Your task to perform on an android device: Open Google Maps Image 0: 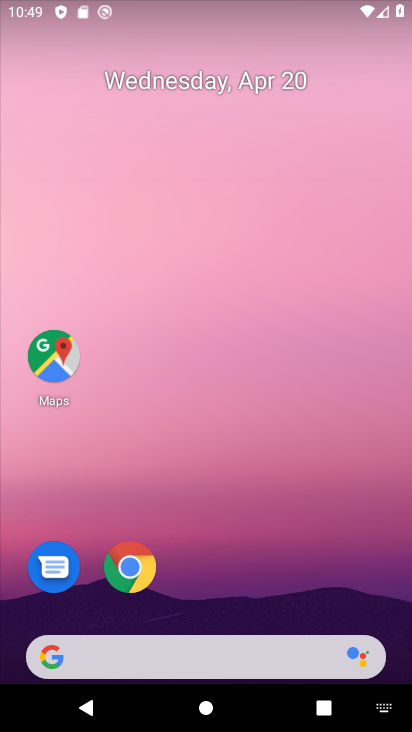
Step 0: drag from (209, 628) to (158, 64)
Your task to perform on an android device: Open Google Maps Image 1: 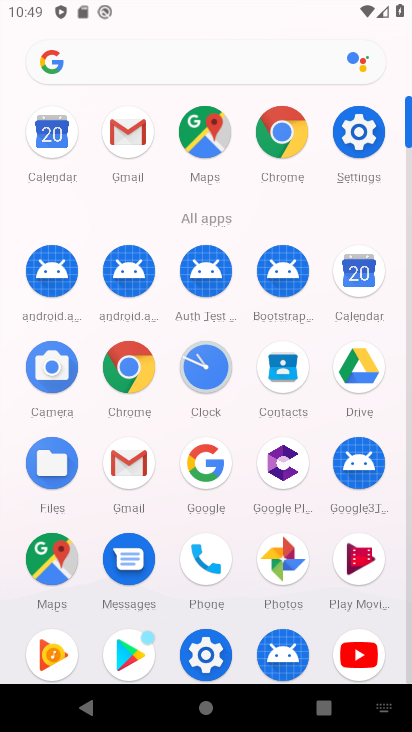
Step 1: click (50, 564)
Your task to perform on an android device: Open Google Maps Image 2: 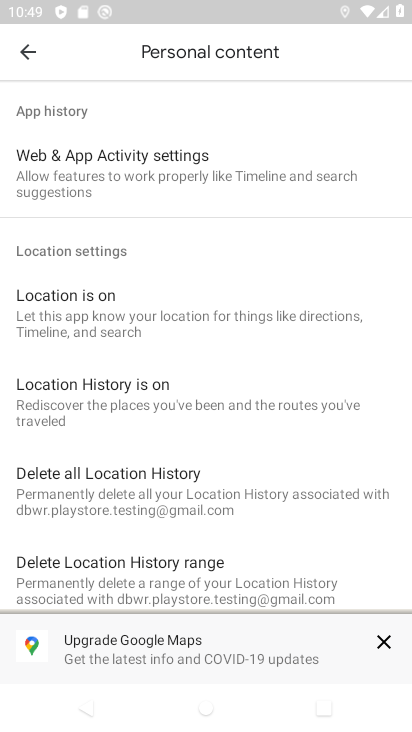
Step 2: press home button
Your task to perform on an android device: Open Google Maps Image 3: 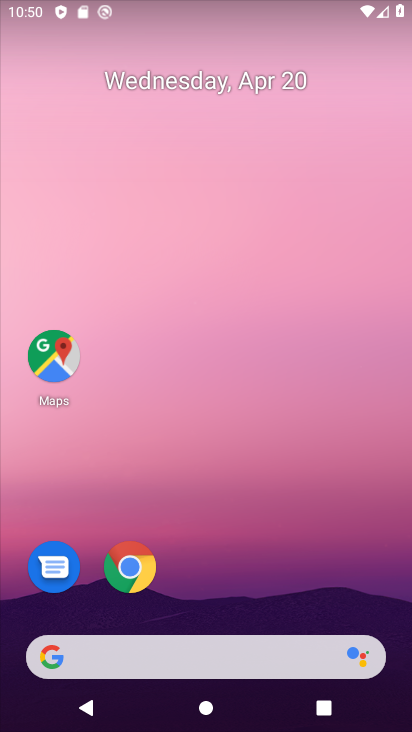
Step 3: click (54, 356)
Your task to perform on an android device: Open Google Maps Image 4: 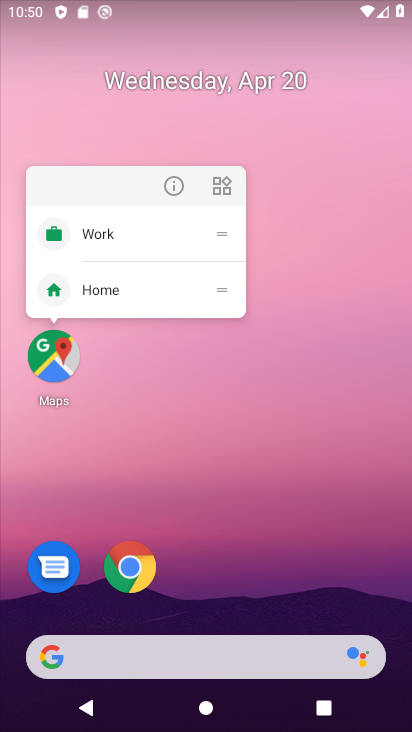
Step 4: click (57, 368)
Your task to perform on an android device: Open Google Maps Image 5: 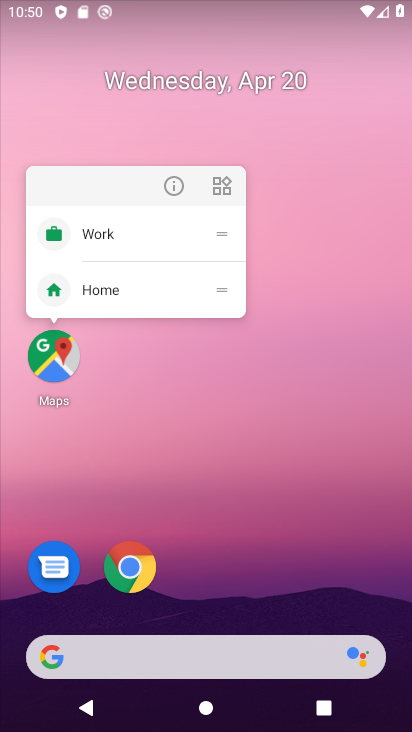
Step 5: click (46, 382)
Your task to perform on an android device: Open Google Maps Image 6: 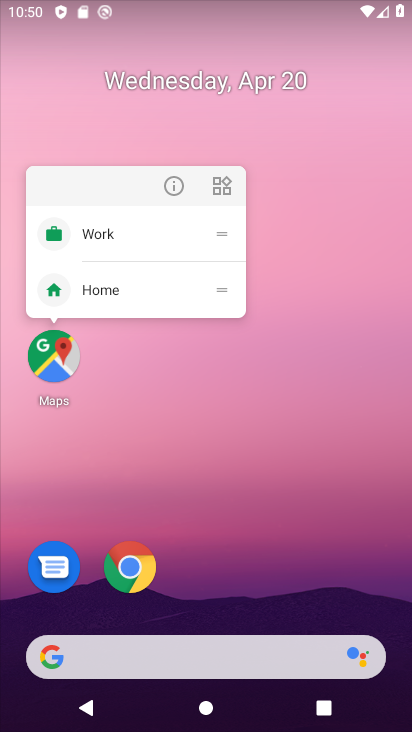
Step 6: click (30, 353)
Your task to perform on an android device: Open Google Maps Image 7: 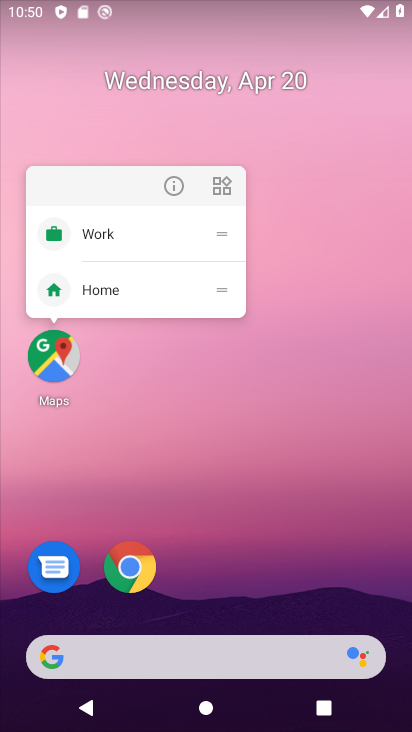
Step 7: click (50, 363)
Your task to perform on an android device: Open Google Maps Image 8: 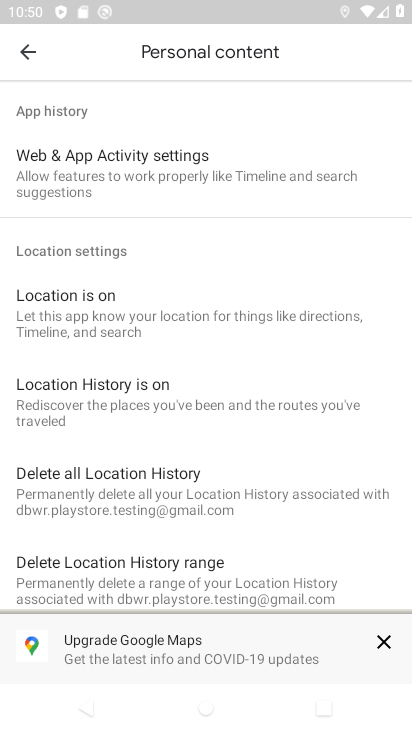
Step 8: click (17, 53)
Your task to perform on an android device: Open Google Maps Image 9: 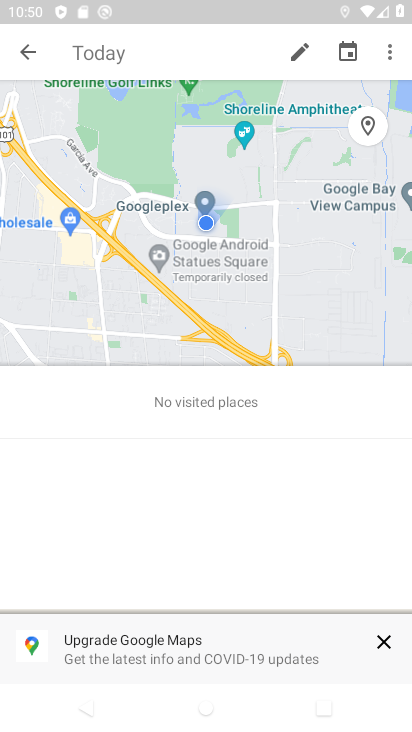
Step 9: task complete